Your task to perform on an android device: change the clock display to show seconds Image 0: 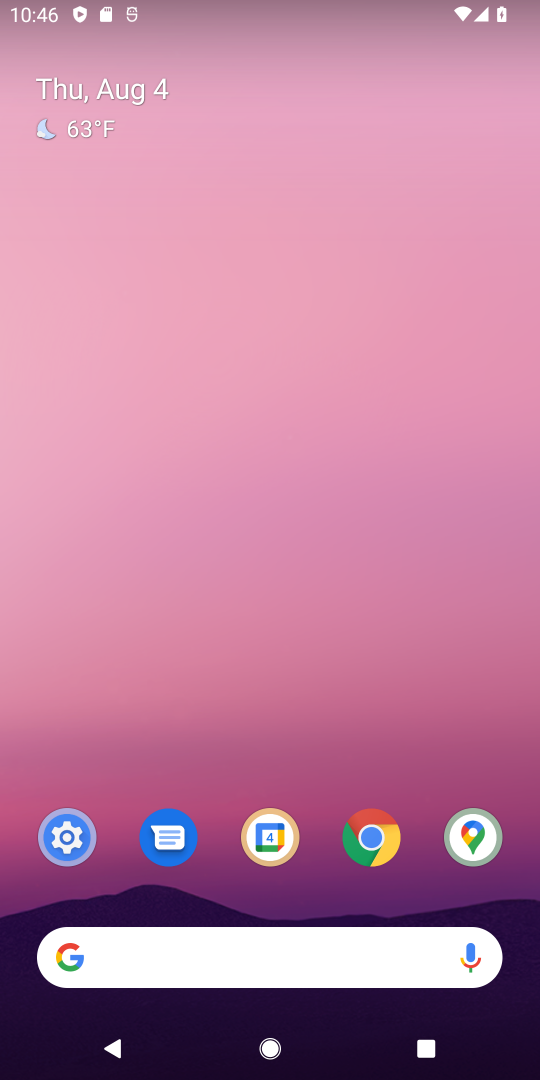
Step 0: press home button
Your task to perform on an android device: change the clock display to show seconds Image 1: 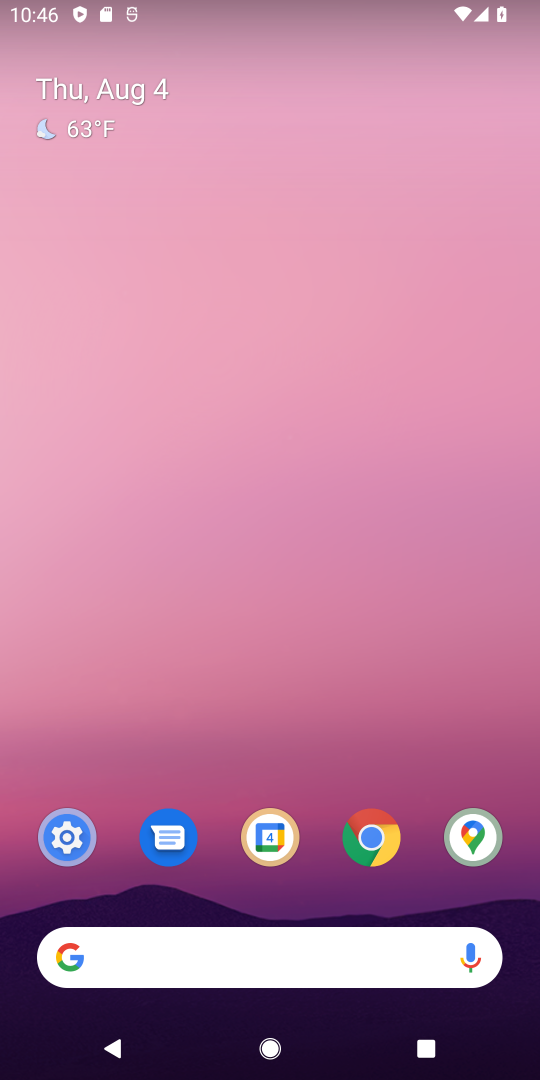
Step 1: drag from (323, 895) to (418, 87)
Your task to perform on an android device: change the clock display to show seconds Image 2: 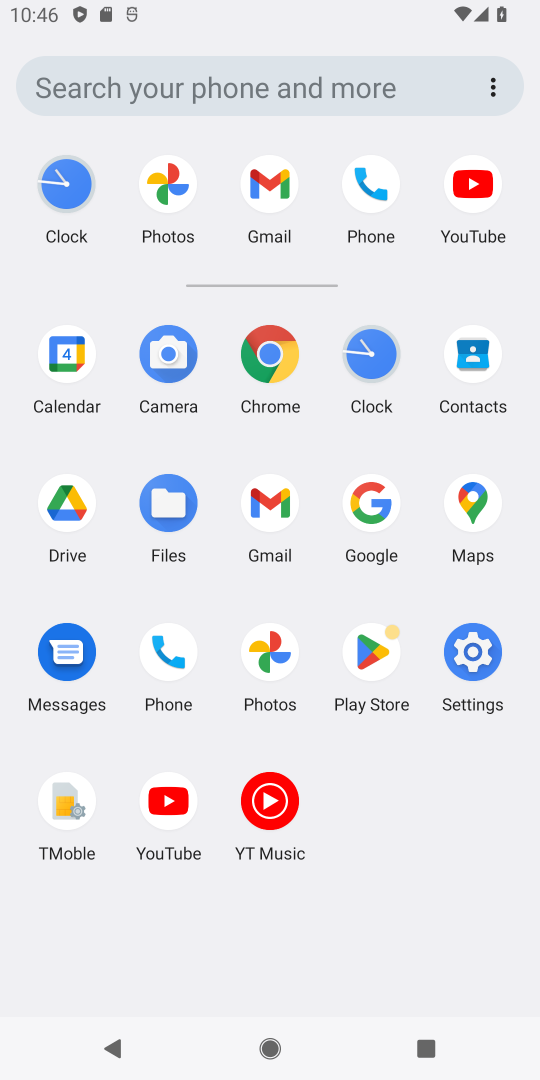
Step 2: click (368, 343)
Your task to perform on an android device: change the clock display to show seconds Image 3: 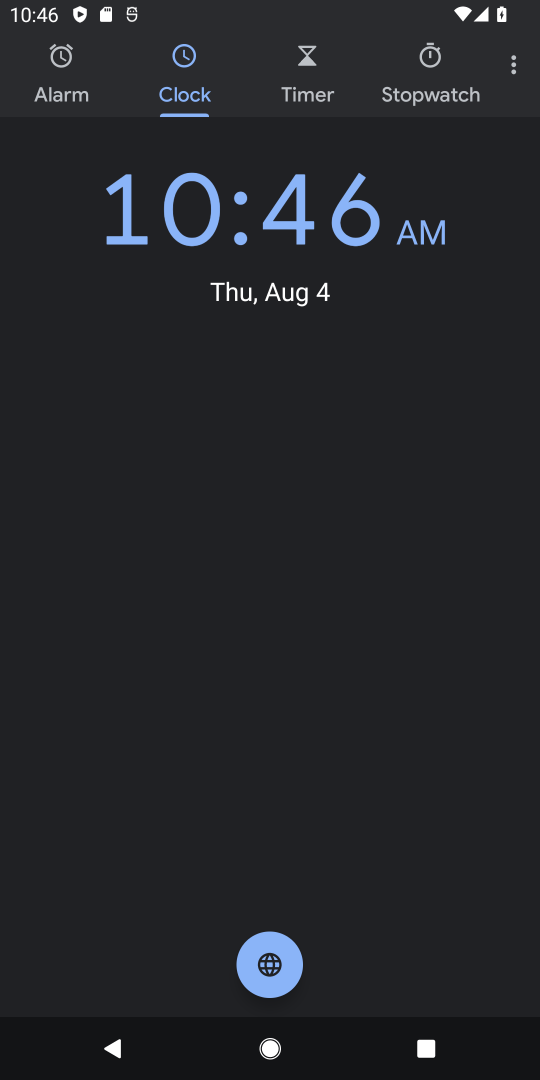
Step 3: click (513, 74)
Your task to perform on an android device: change the clock display to show seconds Image 4: 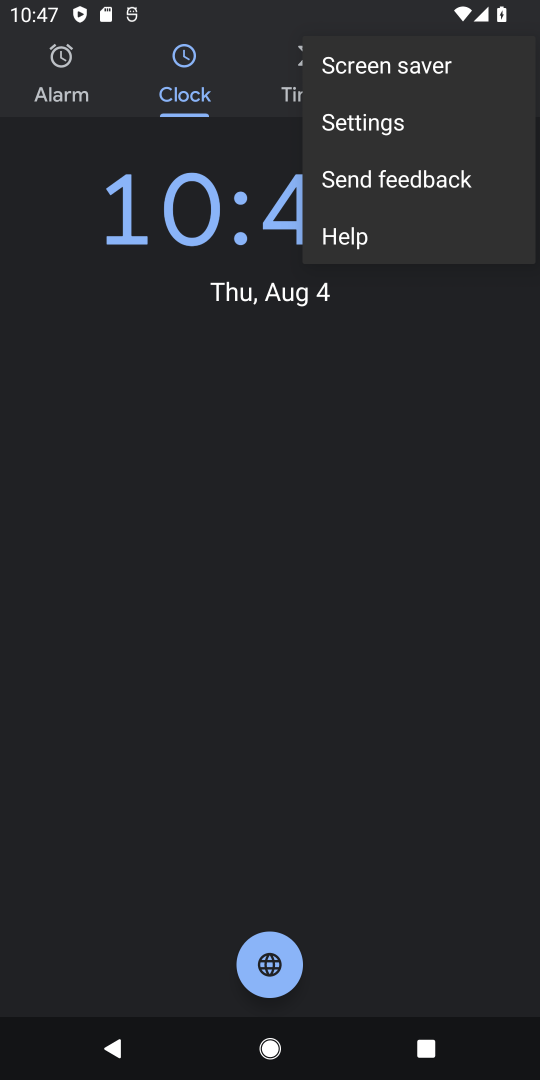
Step 4: click (431, 125)
Your task to perform on an android device: change the clock display to show seconds Image 5: 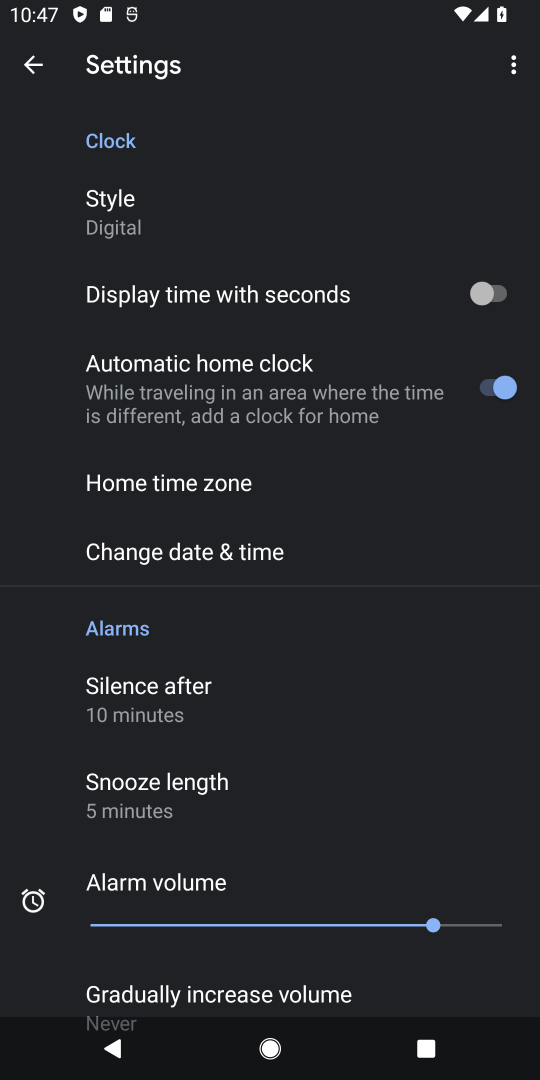
Step 5: click (489, 291)
Your task to perform on an android device: change the clock display to show seconds Image 6: 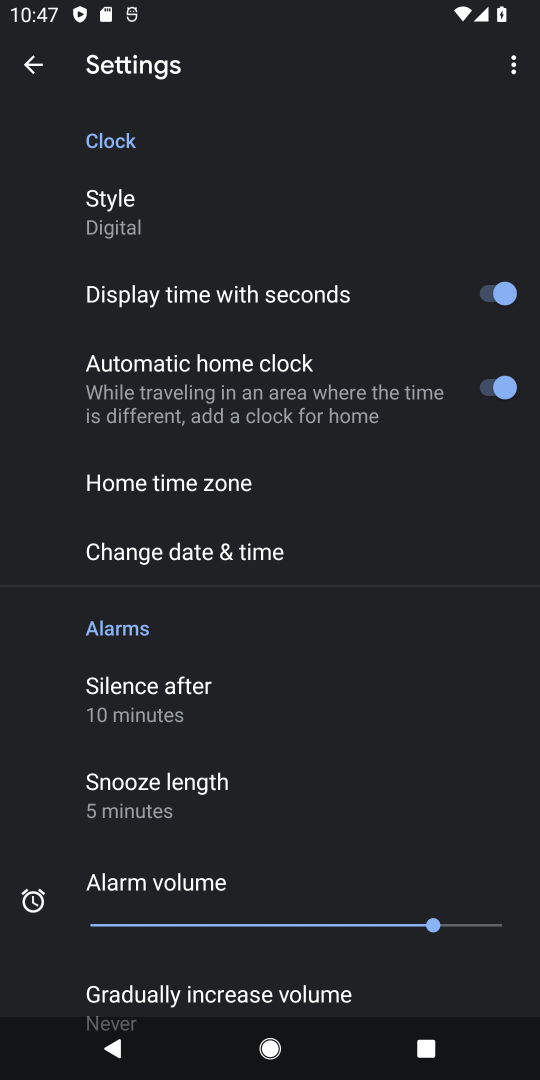
Step 6: task complete